Your task to perform on an android device: Go to notification settings Image 0: 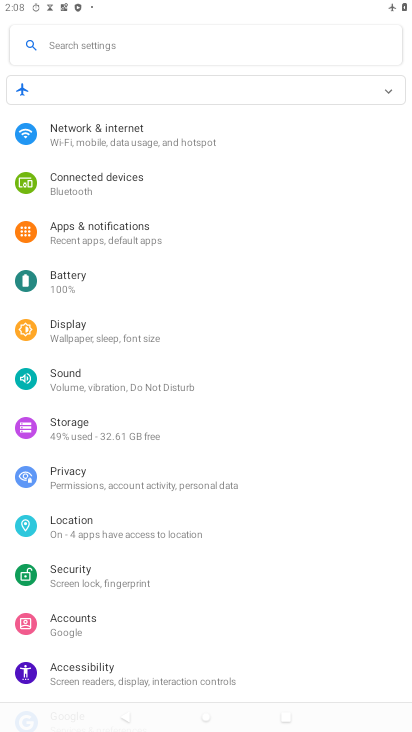
Step 0: press home button
Your task to perform on an android device: Go to notification settings Image 1: 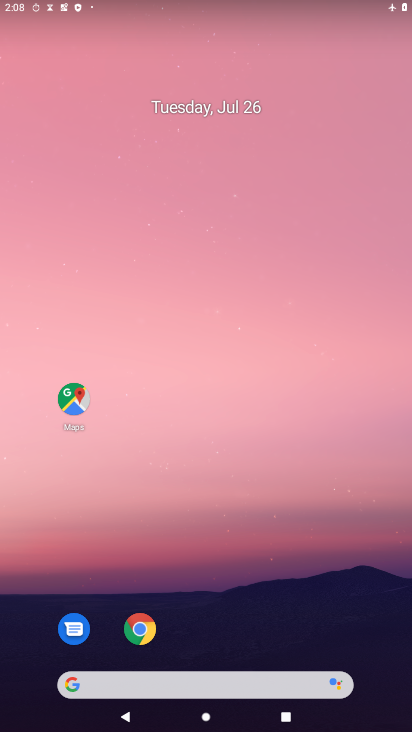
Step 1: drag from (238, 622) to (318, 18)
Your task to perform on an android device: Go to notification settings Image 2: 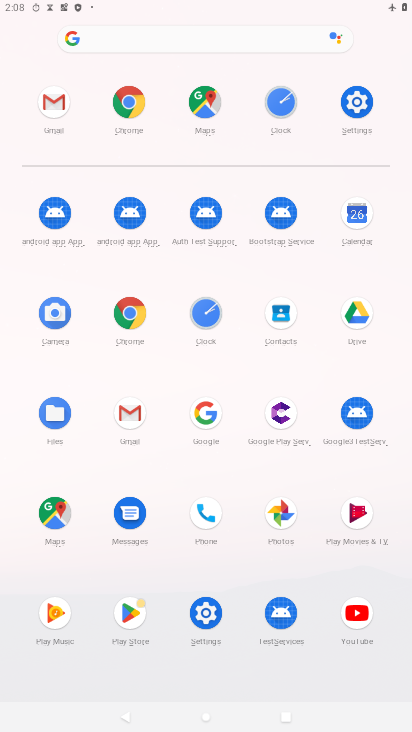
Step 2: click (366, 85)
Your task to perform on an android device: Go to notification settings Image 3: 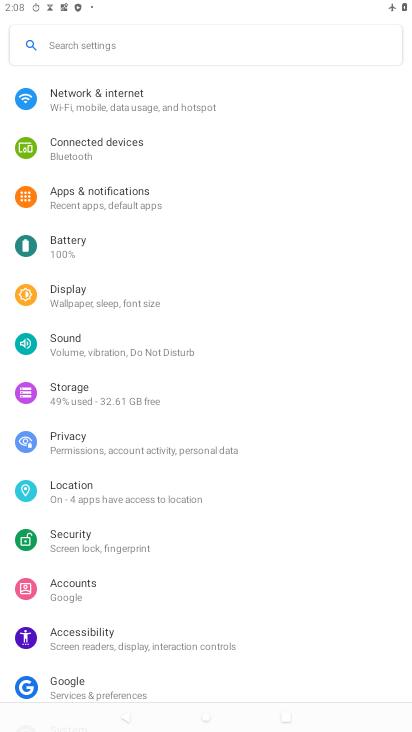
Step 3: click (135, 204)
Your task to perform on an android device: Go to notification settings Image 4: 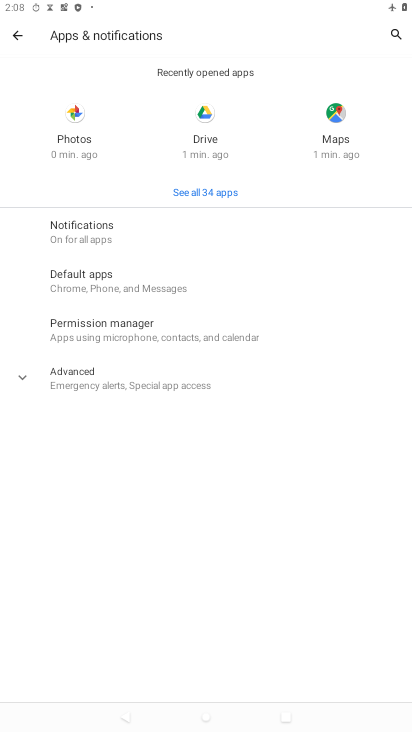
Step 4: task complete